Your task to perform on an android device: Search for vegetarian restaurants on Maps Image 0: 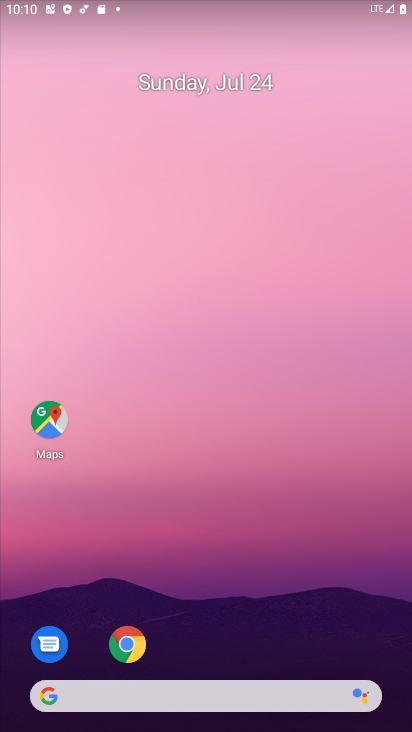
Step 0: click (65, 419)
Your task to perform on an android device: Search for vegetarian restaurants on Maps Image 1: 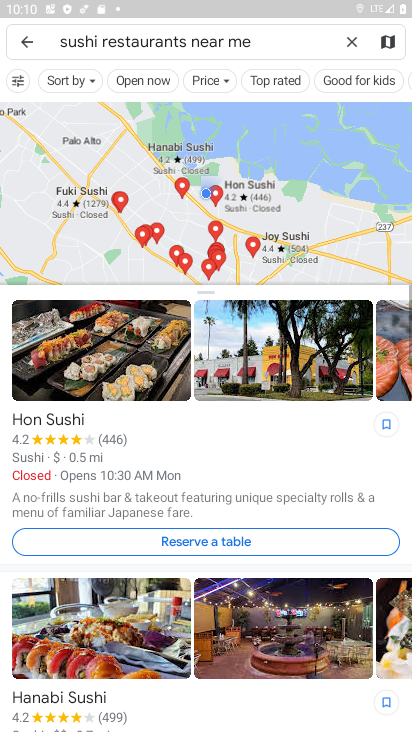
Step 1: click (346, 44)
Your task to perform on an android device: Search for vegetarian restaurants on Maps Image 2: 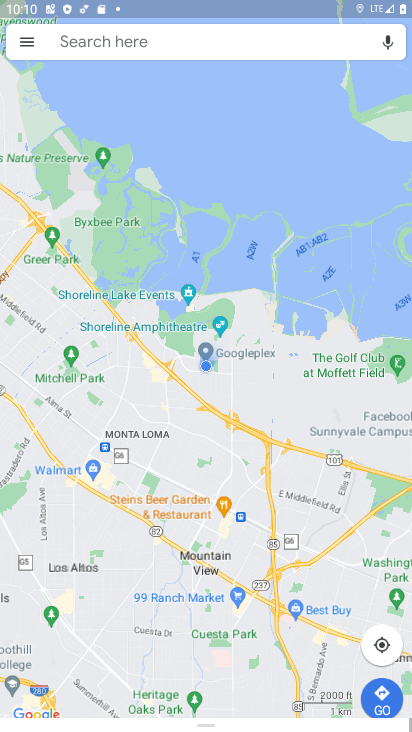
Step 2: click (160, 44)
Your task to perform on an android device: Search for vegetarian restaurants on Maps Image 3: 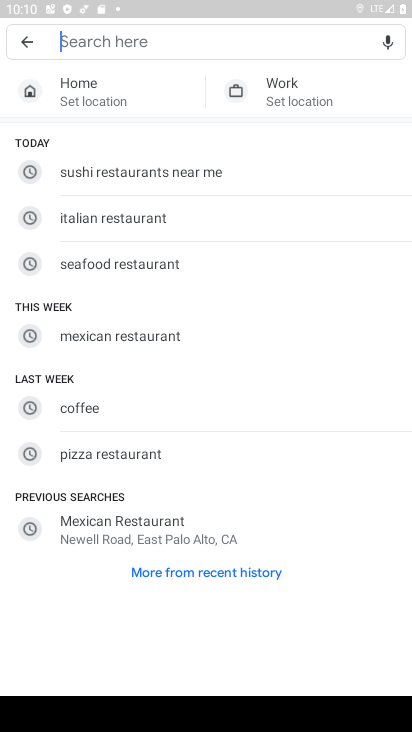
Step 3: click (205, 36)
Your task to perform on an android device: Search for vegetarian restaurants on Maps Image 4: 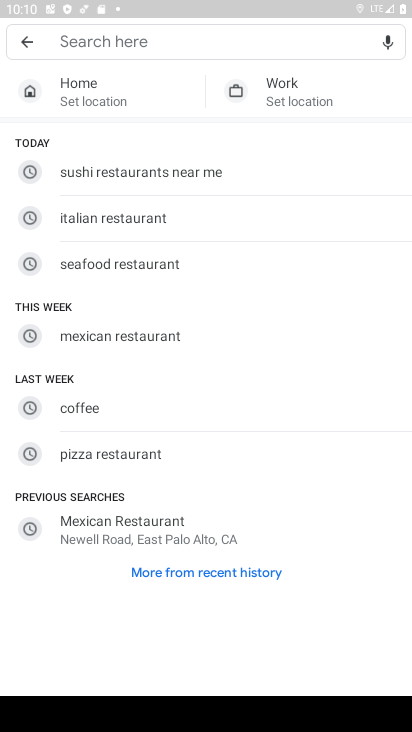
Step 4: type " vegetarian restaurants"
Your task to perform on an android device: Search for vegetarian restaurants on Maps Image 5: 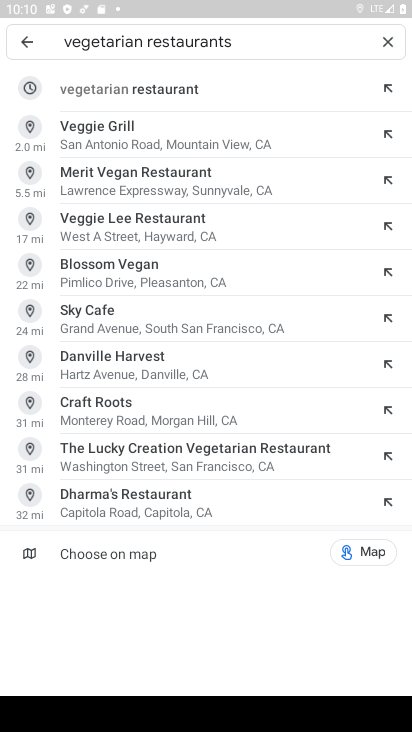
Step 5: click (176, 88)
Your task to perform on an android device: Search for vegetarian restaurants on Maps Image 6: 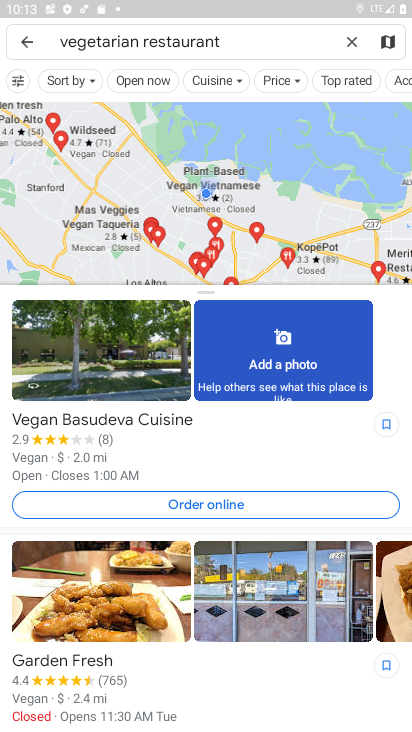
Step 6: task complete